Your task to perform on an android device: turn on javascript in the chrome app Image 0: 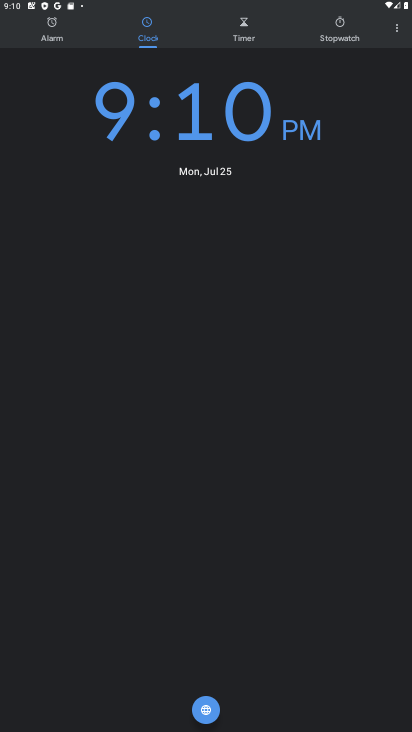
Step 0: task complete